Your task to perform on an android device: open app "Mercado Libre" Image 0: 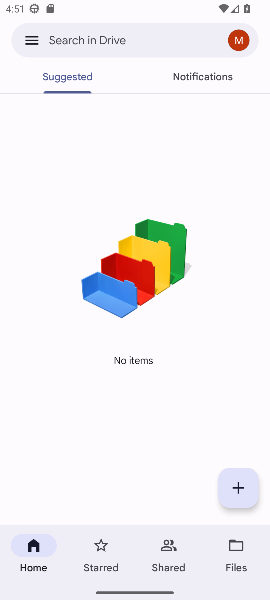
Step 0: press home button
Your task to perform on an android device: open app "Mercado Libre" Image 1: 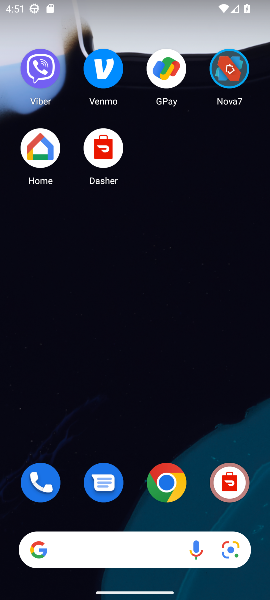
Step 1: press home button
Your task to perform on an android device: open app "Mercado Libre" Image 2: 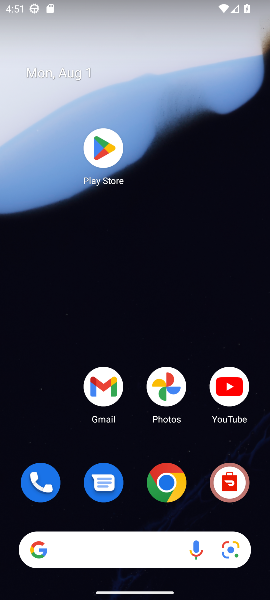
Step 2: click (98, 142)
Your task to perform on an android device: open app "Mercado Libre" Image 3: 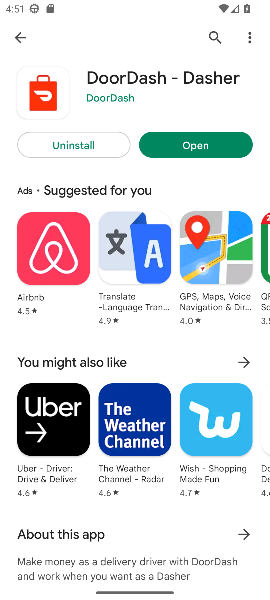
Step 3: click (210, 32)
Your task to perform on an android device: open app "Mercado Libre" Image 4: 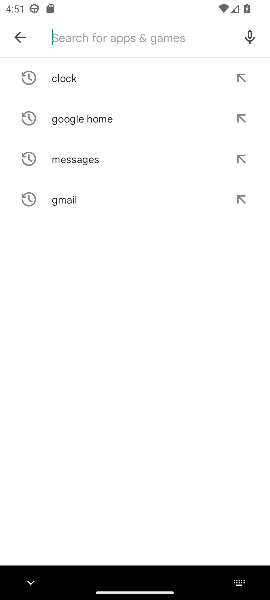
Step 4: type "Mercado Libre"
Your task to perform on an android device: open app "Mercado Libre" Image 5: 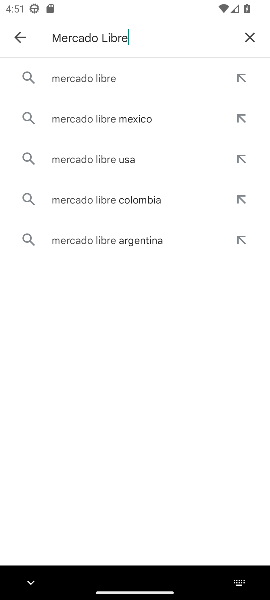
Step 5: click (105, 78)
Your task to perform on an android device: open app "Mercado Libre" Image 6: 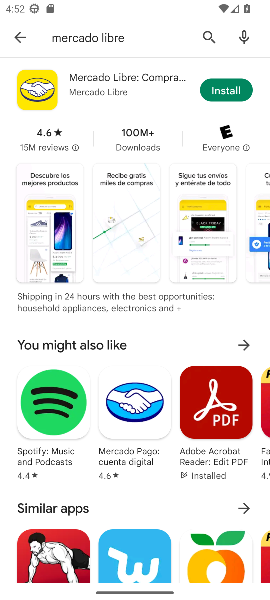
Step 6: task complete